Your task to perform on an android device: Open maps Image 0: 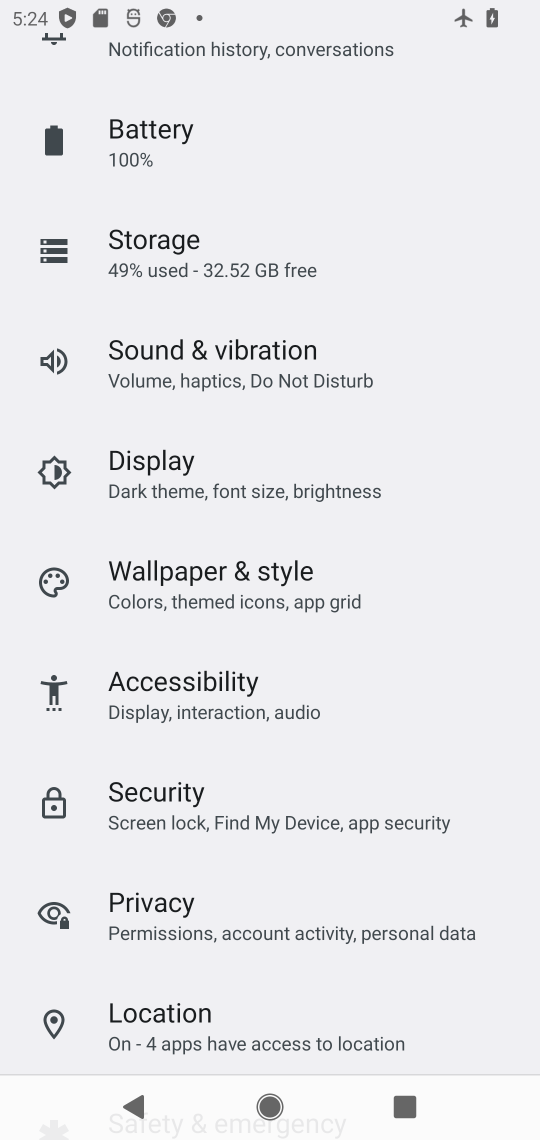
Step 0: press home button
Your task to perform on an android device: Open maps Image 1: 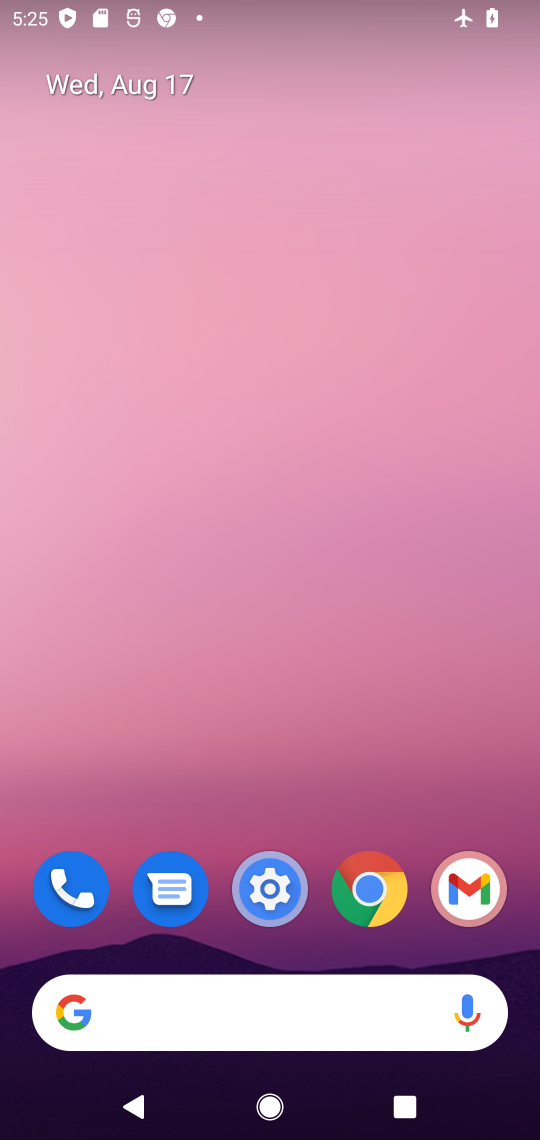
Step 1: drag from (295, 774) to (218, 148)
Your task to perform on an android device: Open maps Image 2: 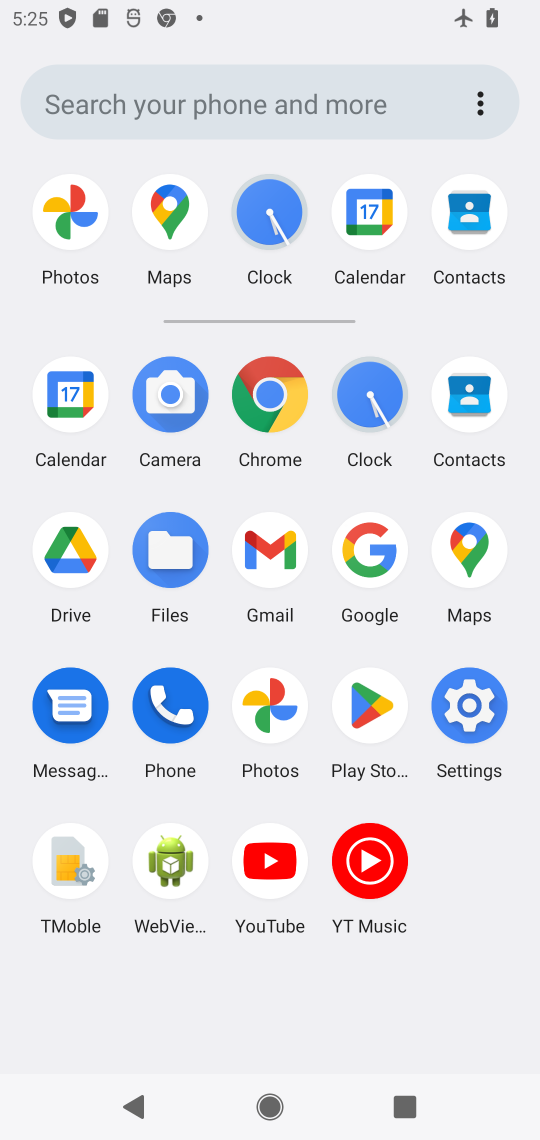
Step 2: click (172, 199)
Your task to perform on an android device: Open maps Image 3: 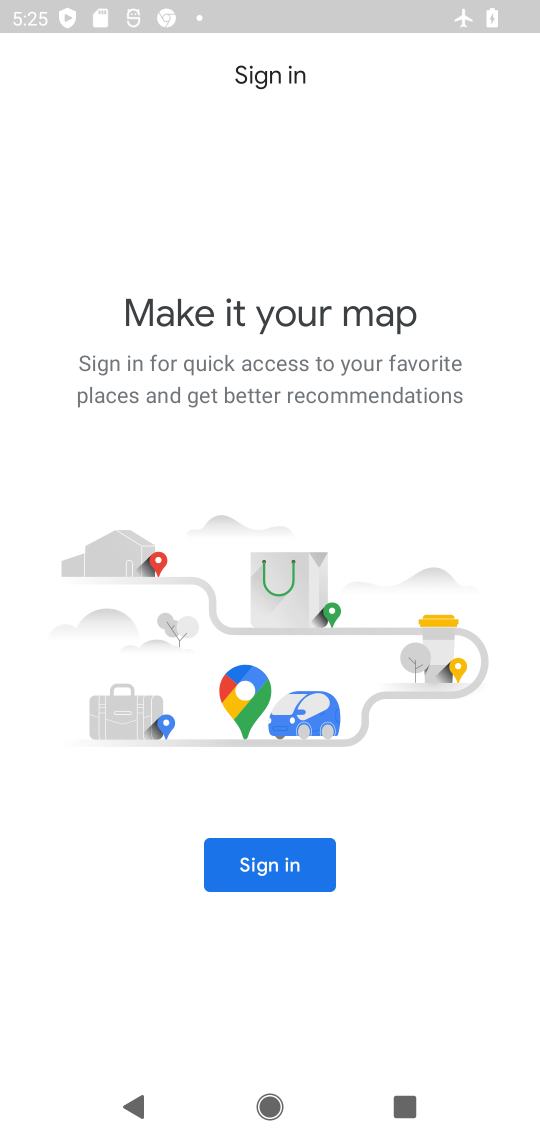
Step 3: task complete